Your task to perform on an android device: check battery use Image 0: 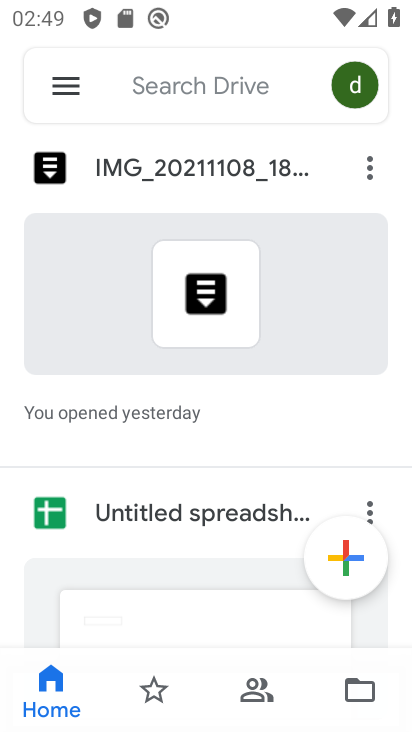
Step 0: press home button
Your task to perform on an android device: check battery use Image 1: 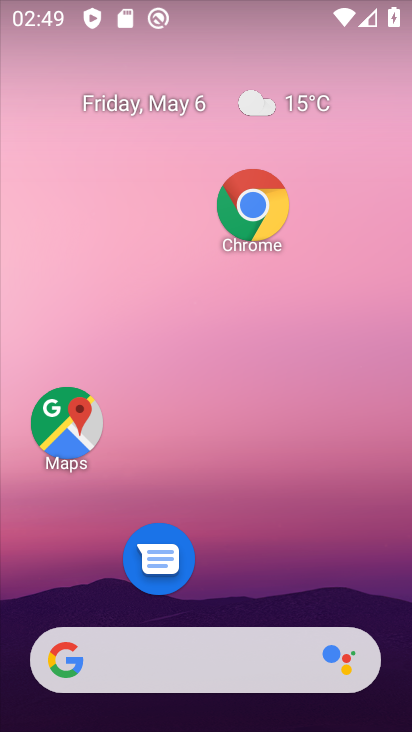
Step 1: drag from (276, 605) to (397, 47)
Your task to perform on an android device: check battery use Image 2: 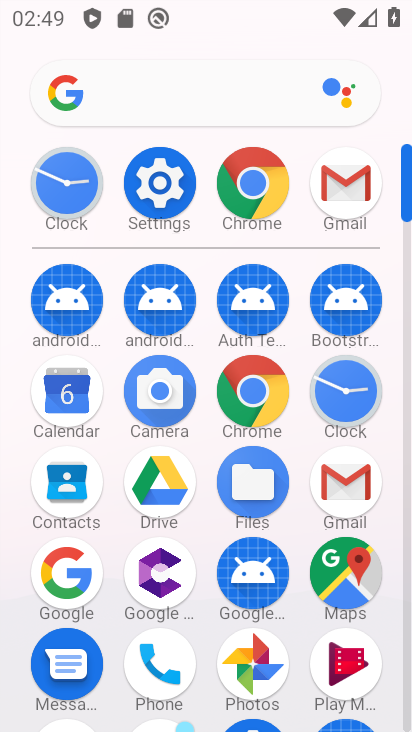
Step 2: click (169, 177)
Your task to perform on an android device: check battery use Image 3: 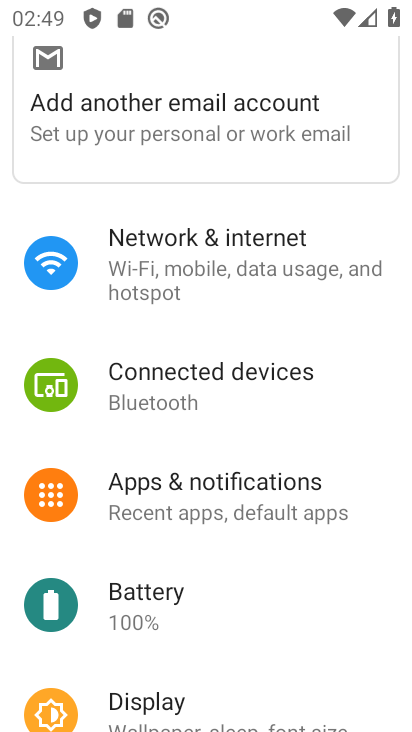
Step 3: click (188, 589)
Your task to perform on an android device: check battery use Image 4: 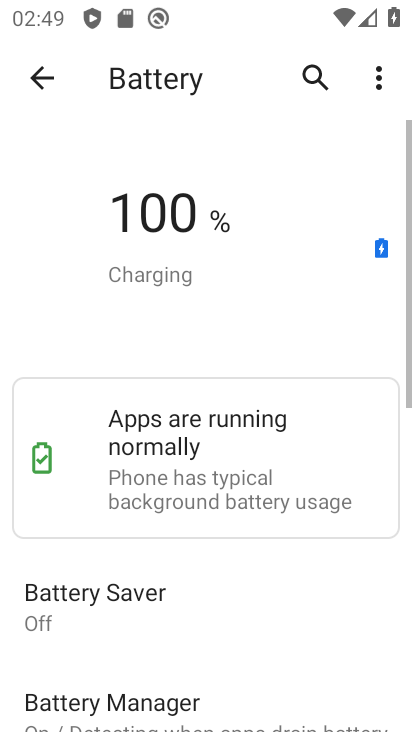
Step 4: task complete